Your task to perform on an android device: add a label to a message in the gmail app Image 0: 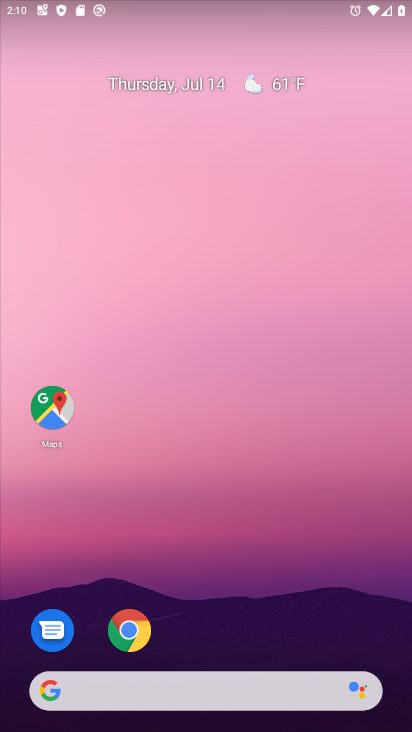
Step 0: drag from (184, 686) to (318, 204)
Your task to perform on an android device: add a label to a message in the gmail app Image 1: 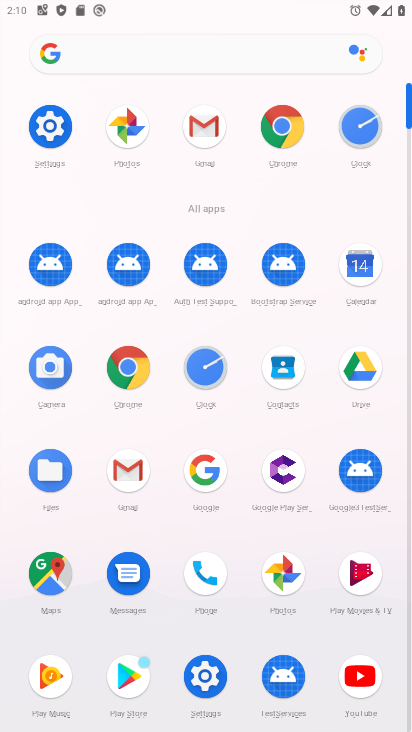
Step 1: click (209, 128)
Your task to perform on an android device: add a label to a message in the gmail app Image 2: 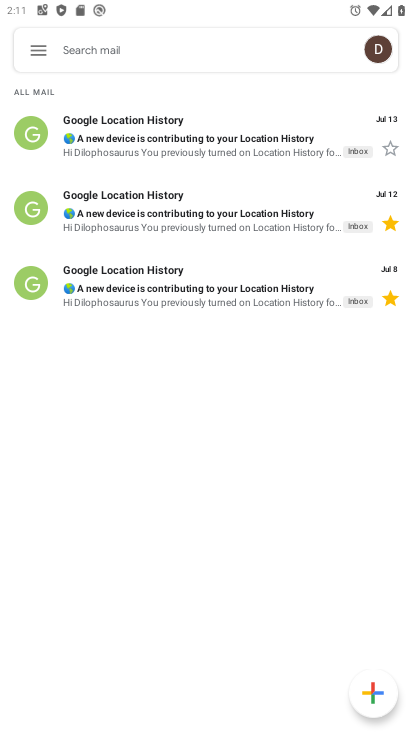
Step 2: click (38, 125)
Your task to perform on an android device: add a label to a message in the gmail app Image 3: 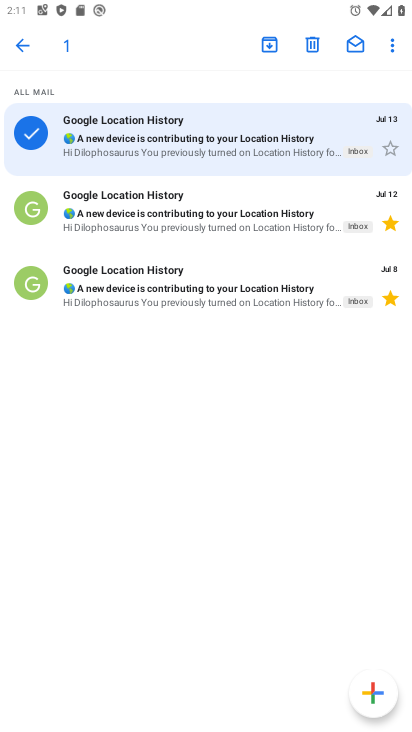
Step 3: click (388, 49)
Your task to perform on an android device: add a label to a message in the gmail app Image 4: 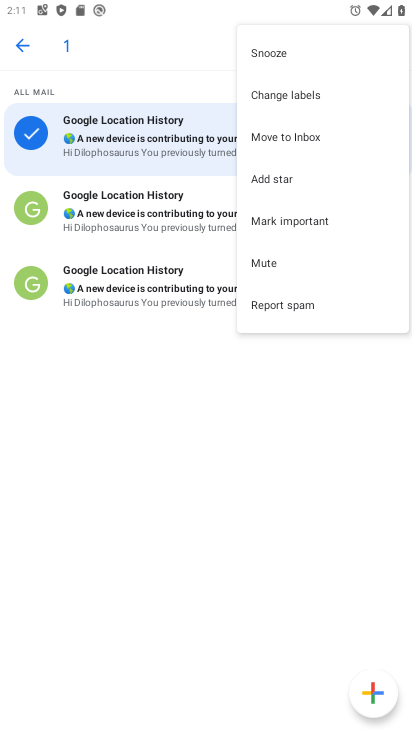
Step 4: click (330, 100)
Your task to perform on an android device: add a label to a message in the gmail app Image 5: 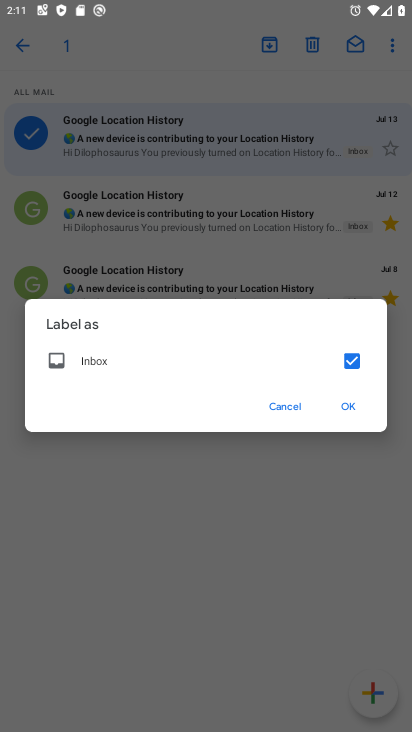
Step 5: task complete